Your task to perform on an android device: turn on location history Image 0: 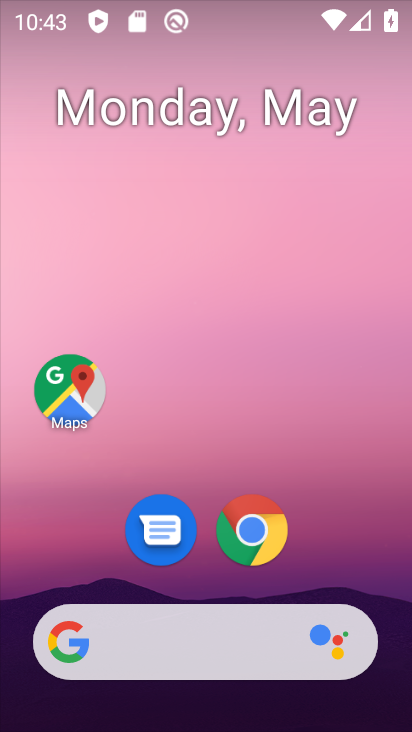
Step 0: drag from (335, 540) to (246, 0)
Your task to perform on an android device: turn on location history Image 1: 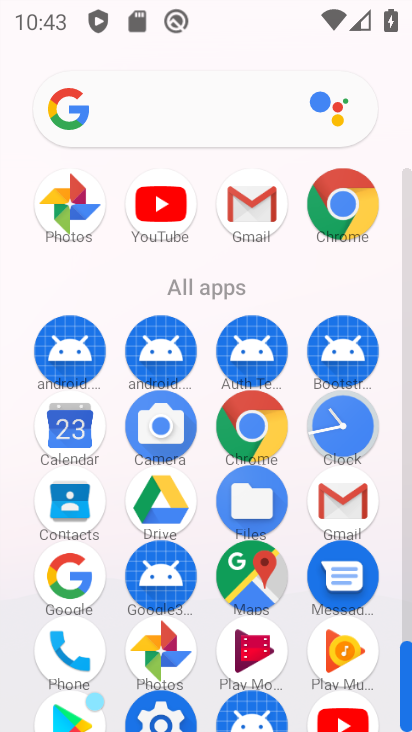
Step 1: drag from (216, 534) to (203, 330)
Your task to perform on an android device: turn on location history Image 2: 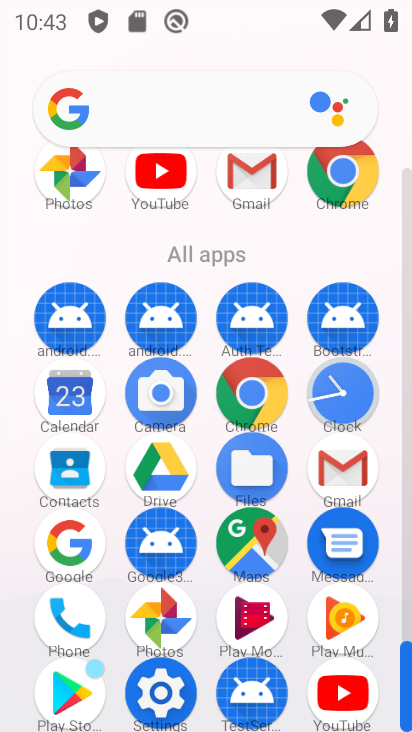
Step 2: click (159, 694)
Your task to perform on an android device: turn on location history Image 3: 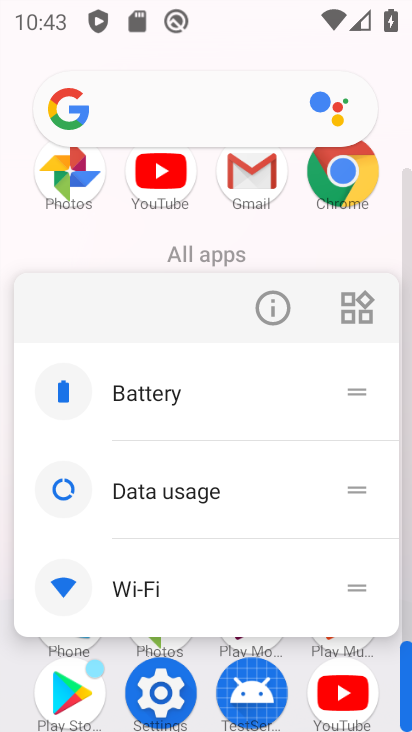
Step 3: click (159, 694)
Your task to perform on an android device: turn on location history Image 4: 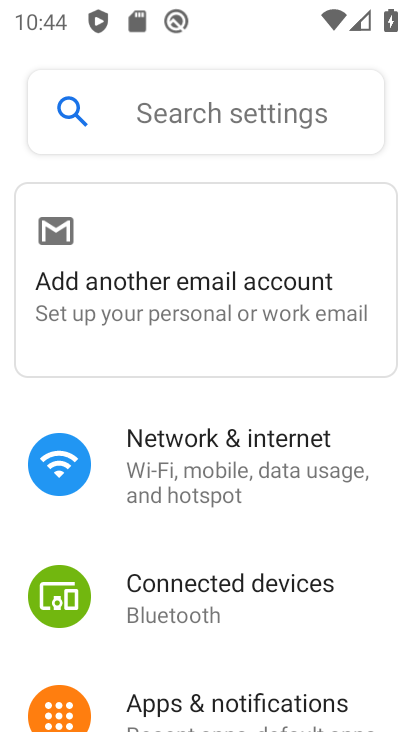
Step 4: drag from (198, 622) to (250, 472)
Your task to perform on an android device: turn on location history Image 5: 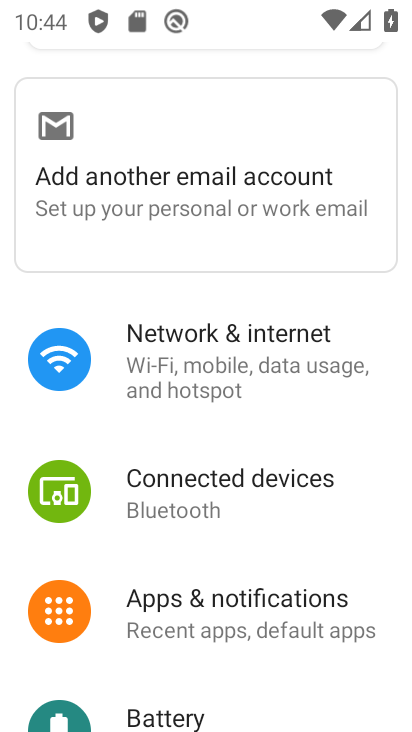
Step 5: drag from (176, 572) to (208, 456)
Your task to perform on an android device: turn on location history Image 6: 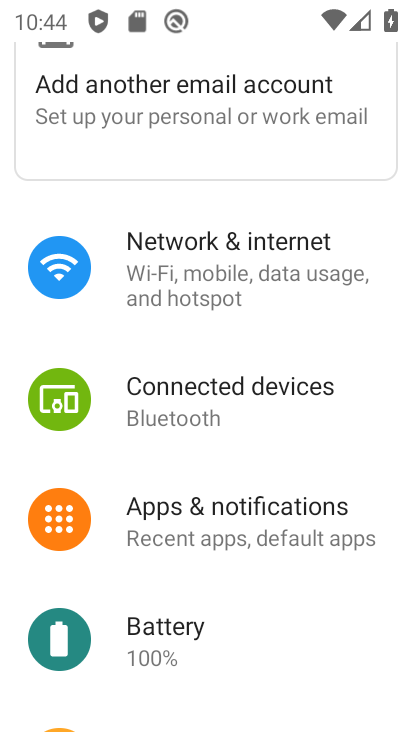
Step 6: drag from (177, 590) to (209, 456)
Your task to perform on an android device: turn on location history Image 7: 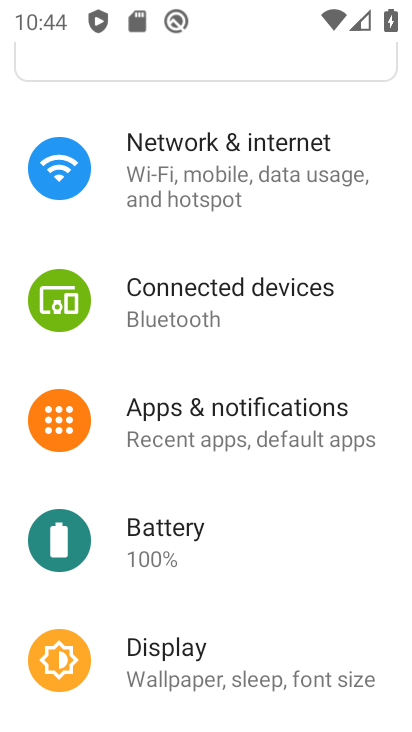
Step 7: drag from (201, 609) to (229, 476)
Your task to perform on an android device: turn on location history Image 8: 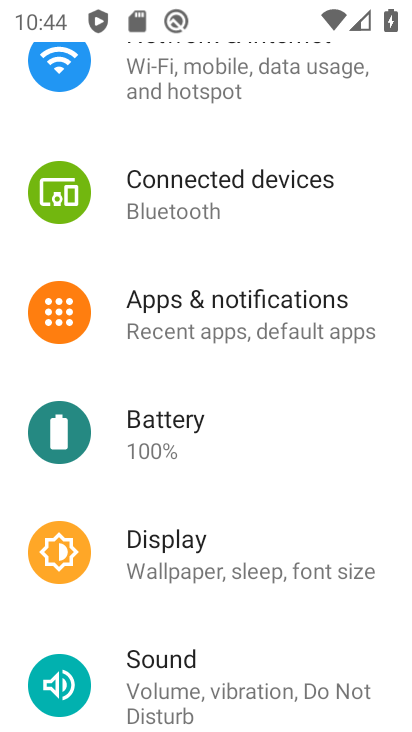
Step 8: drag from (166, 618) to (237, 461)
Your task to perform on an android device: turn on location history Image 9: 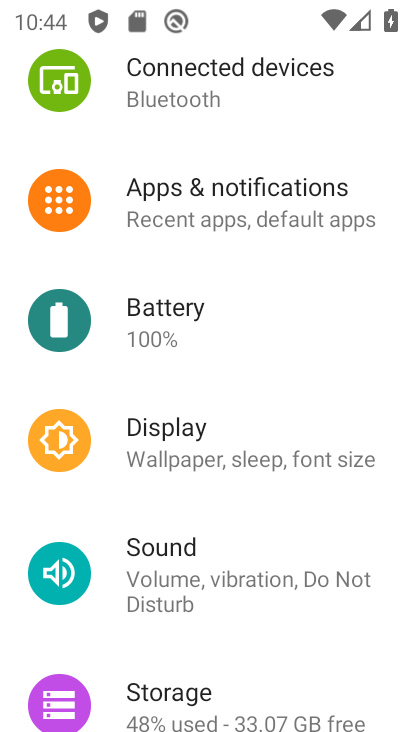
Step 9: drag from (153, 640) to (218, 342)
Your task to perform on an android device: turn on location history Image 10: 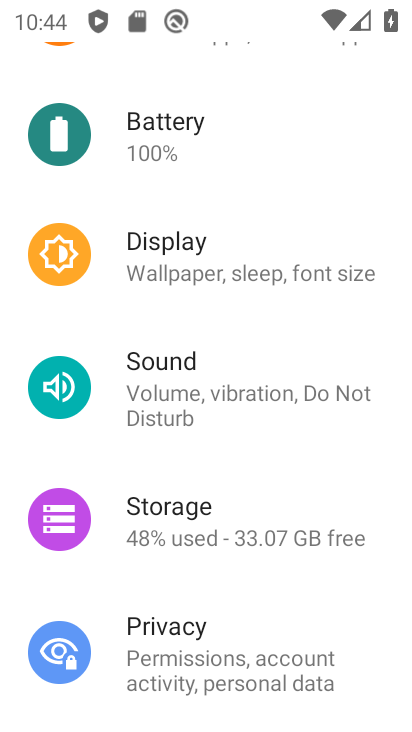
Step 10: drag from (160, 588) to (284, 216)
Your task to perform on an android device: turn on location history Image 11: 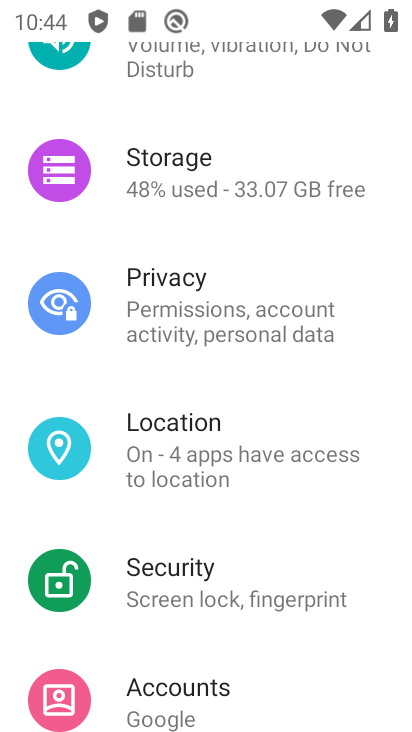
Step 11: click (187, 427)
Your task to perform on an android device: turn on location history Image 12: 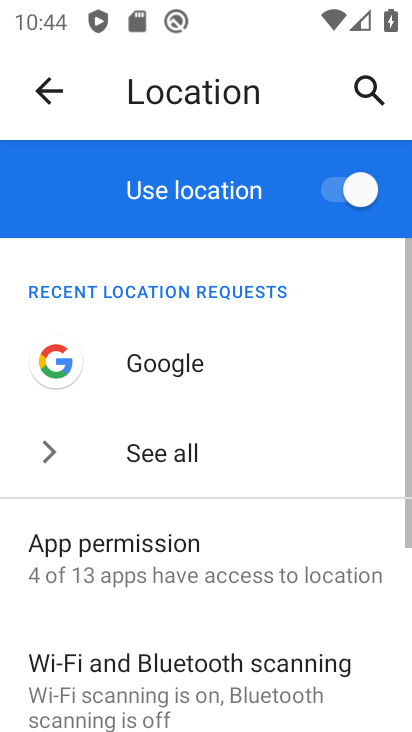
Step 12: drag from (165, 510) to (226, 406)
Your task to perform on an android device: turn on location history Image 13: 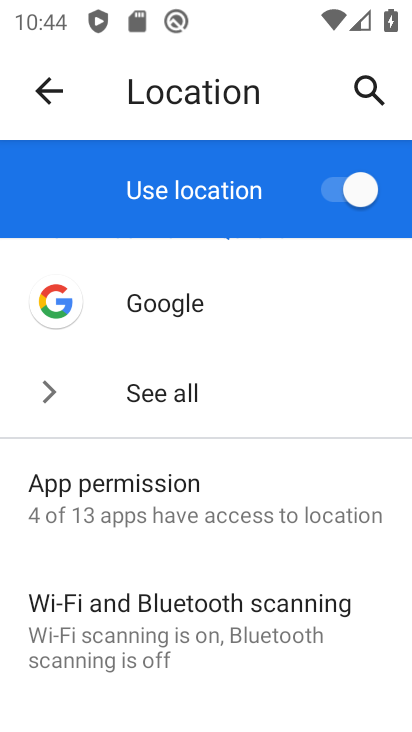
Step 13: drag from (244, 521) to (278, 431)
Your task to perform on an android device: turn on location history Image 14: 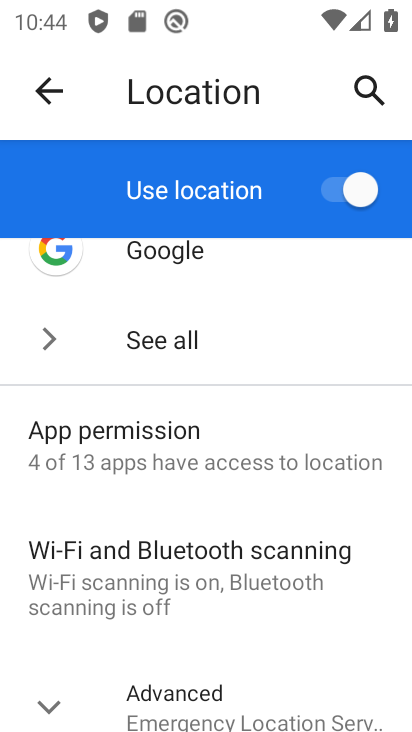
Step 14: click (179, 719)
Your task to perform on an android device: turn on location history Image 15: 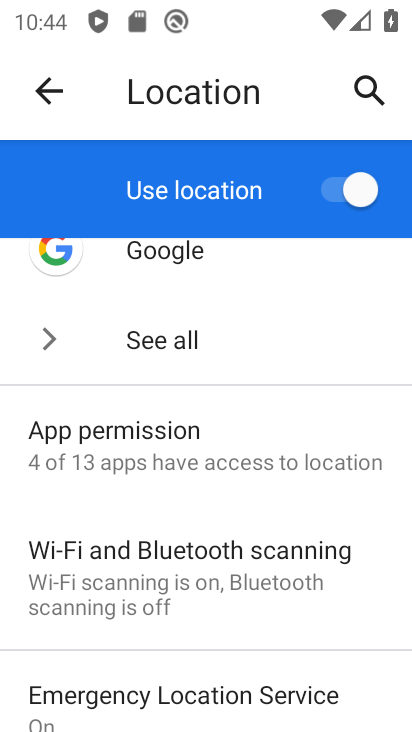
Step 15: drag from (198, 657) to (277, 387)
Your task to perform on an android device: turn on location history Image 16: 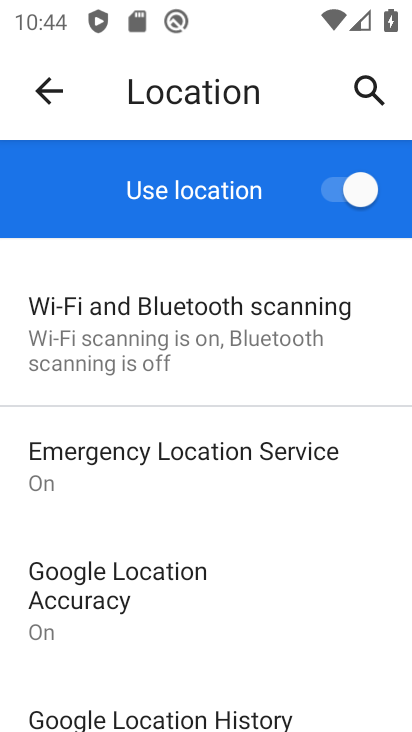
Step 16: drag from (204, 654) to (284, 415)
Your task to perform on an android device: turn on location history Image 17: 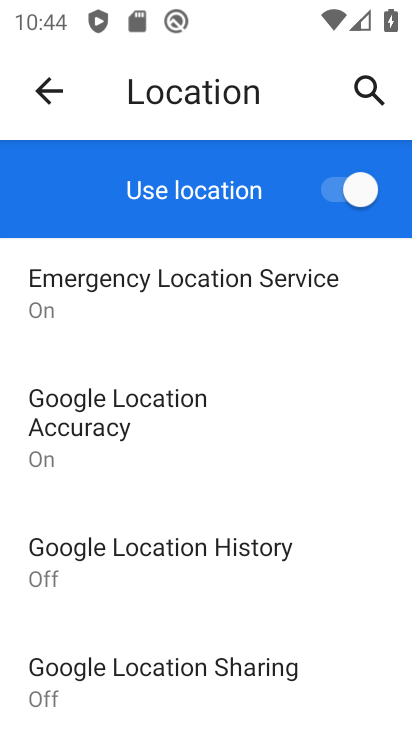
Step 17: click (145, 553)
Your task to perform on an android device: turn on location history Image 18: 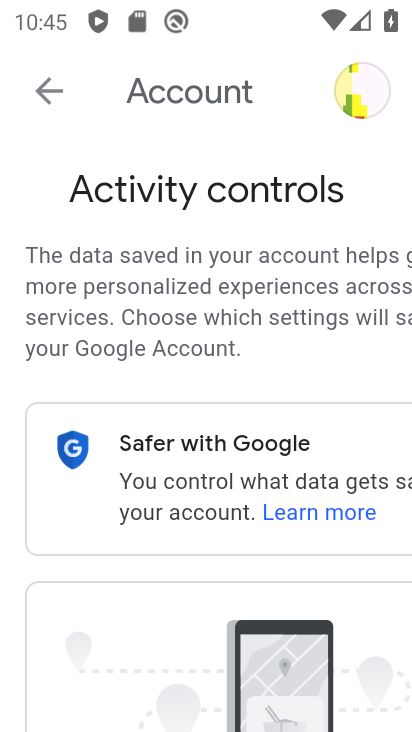
Step 18: drag from (179, 657) to (250, 451)
Your task to perform on an android device: turn on location history Image 19: 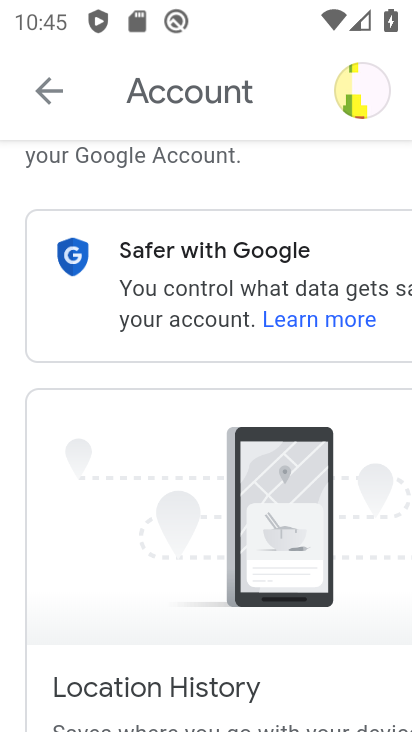
Step 19: drag from (193, 548) to (250, 343)
Your task to perform on an android device: turn on location history Image 20: 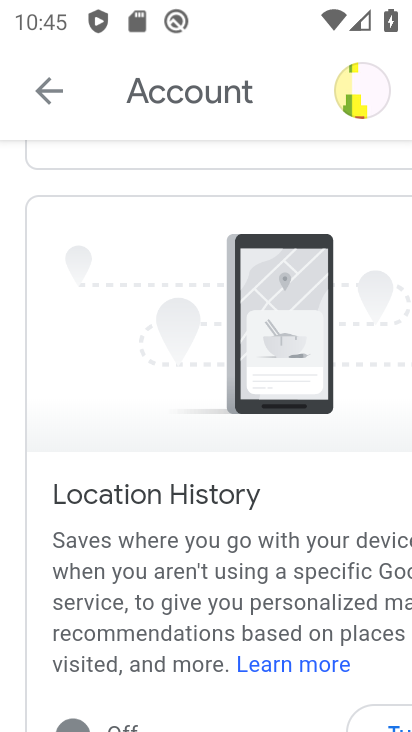
Step 20: drag from (164, 574) to (198, 411)
Your task to perform on an android device: turn on location history Image 21: 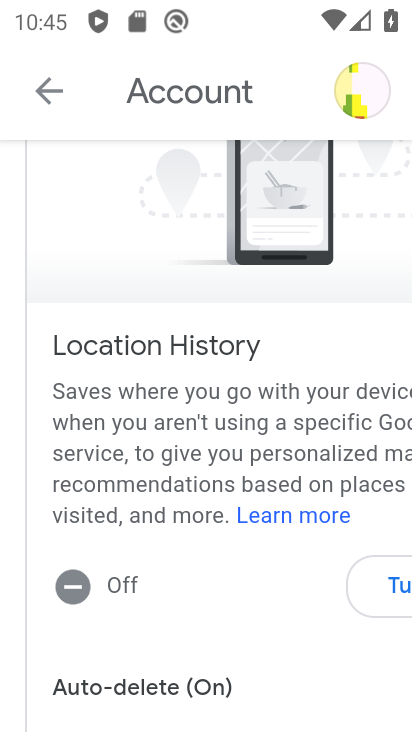
Step 21: click (404, 583)
Your task to perform on an android device: turn on location history Image 22: 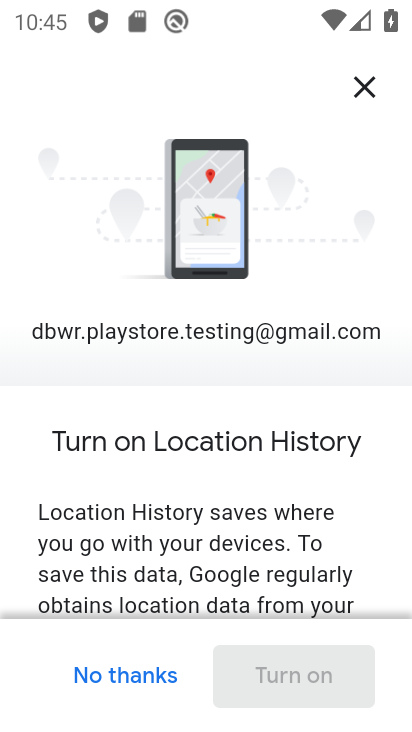
Step 22: drag from (285, 575) to (329, 264)
Your task to perform on an android device: turn on location history Image 23: 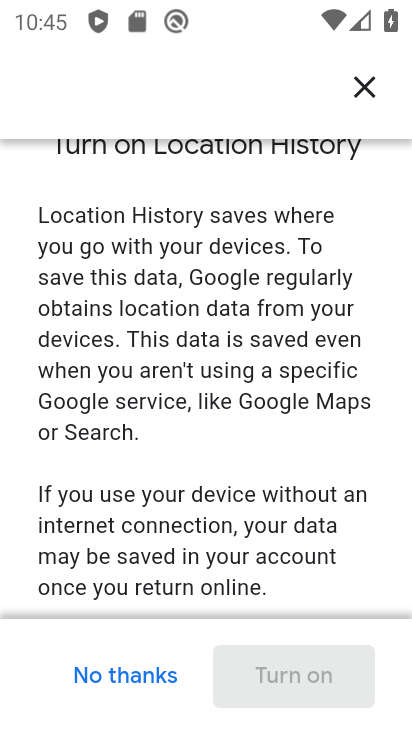
Step 23: drag from (232, 533) to (288, 384)
Your task to perform on an android device: turn on location history Image 24: 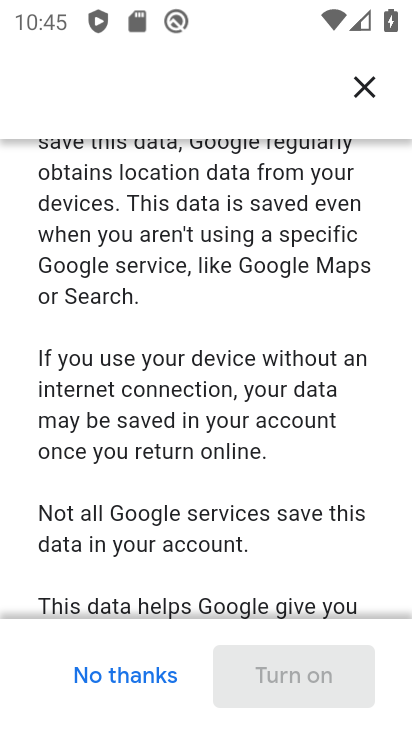
Step 24: drag from (208, 566) to (289, 347)
Your task to perform on an android device: turn on location history Image 25: 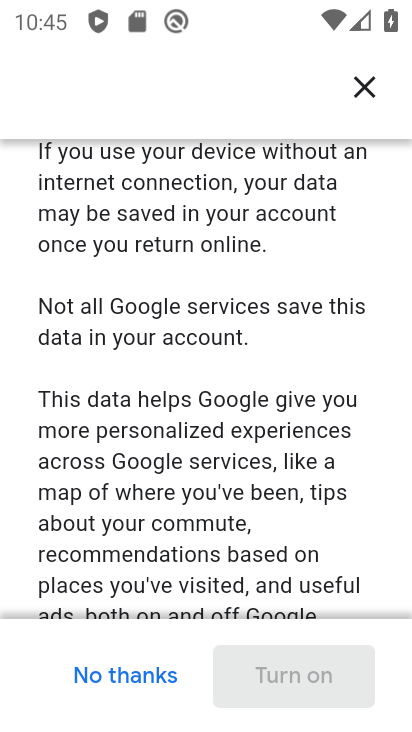
Step 25: drag from (201, 581) to (271, 349)
Your task to perform on an android device: turn on location history Image 26: 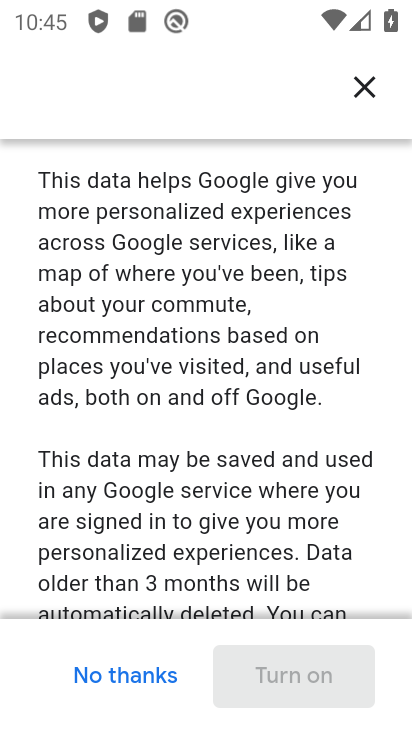
Step 26: drag from (204, 546) to (280, 369)
Your task to perform on an android device: turn on location history Image 27: 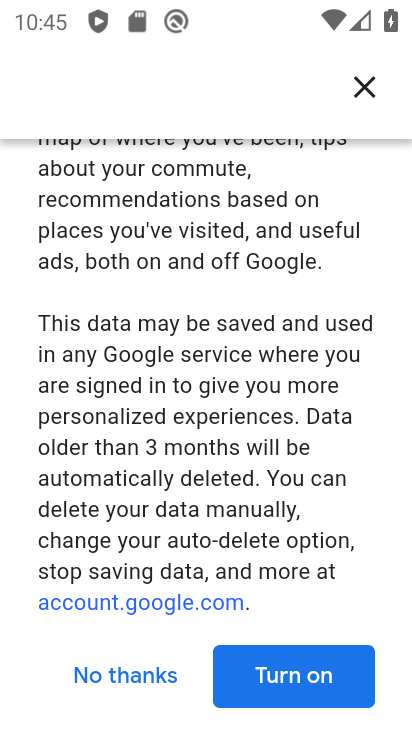
Step 27: click (287, 674)
Your task to perform on an android device: turn on location history Image 28: 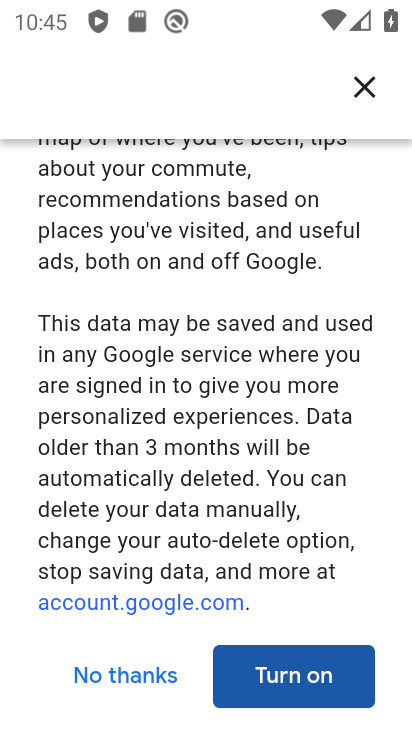
Step 28: click (287, 674)
Your task to perform on an android device: turn on location history Image 29: 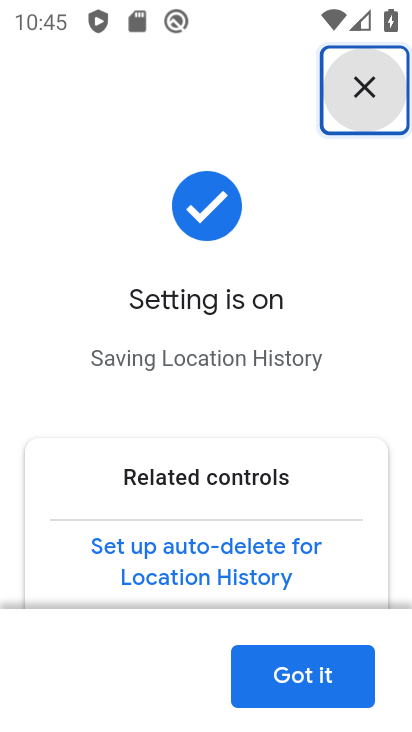
Step 29: click (287, 674)
Your task to perform on an android device: turn on location history Image 30: 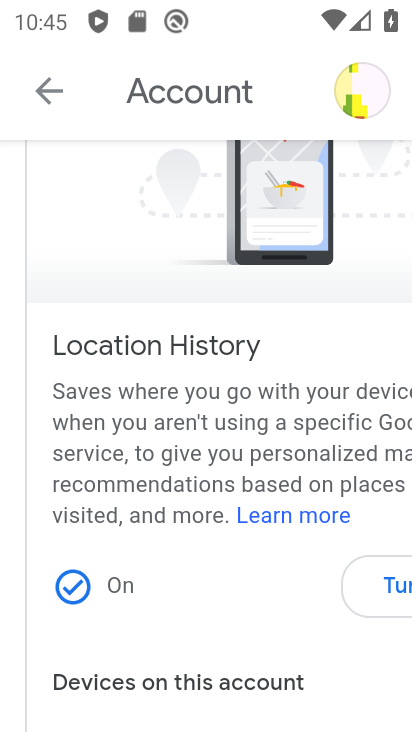
Step 30: task complete